Your task to perform on an android device: Turn off the flashlight Image 0: 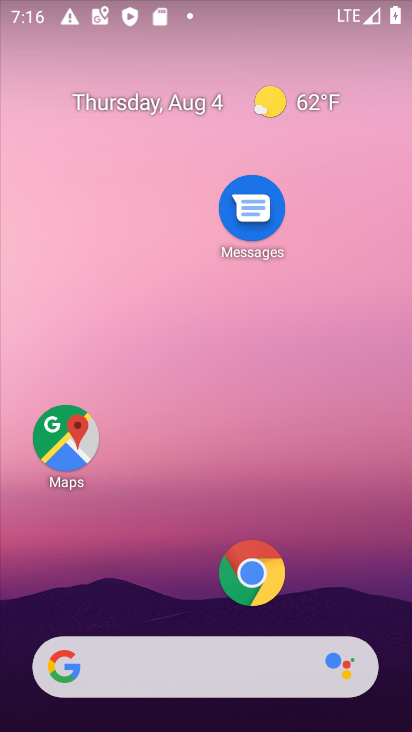
Step 0: press home button
Your task to perform on an android device: Turn off the flashlight Image 1: 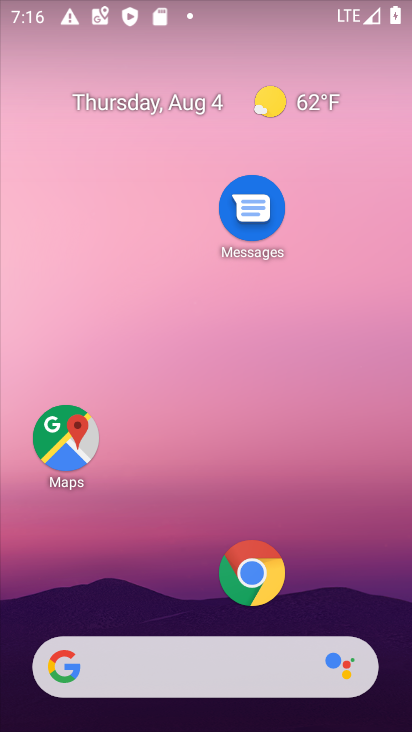
Step 1: task complete